Your task to perform on an android device: Do I have any events today? Image 0: 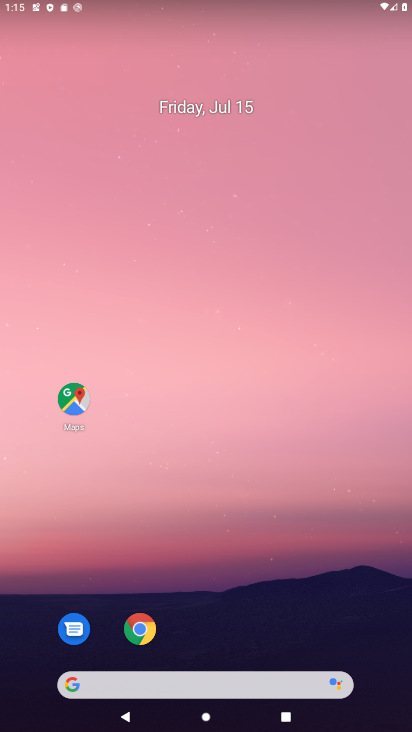
Step 0: drag from (242, 557) to (91, 0)
Your task to perform on an android device: Do I have any events today? Image 1: 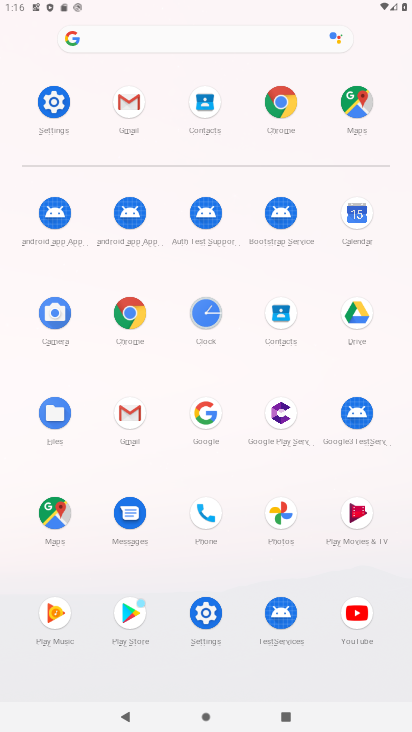
Step 1: click (350, 224)
Your task to perform on an android device: Do I have any events today? Image 2: 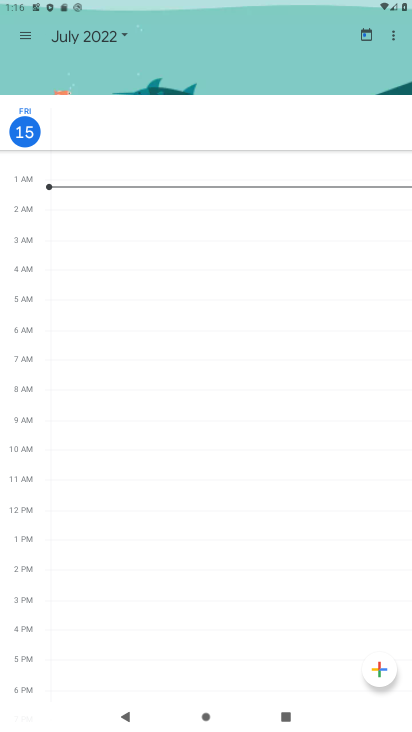
Step 2: task complete